Your task to perform on an android device: Check the news Image 0: 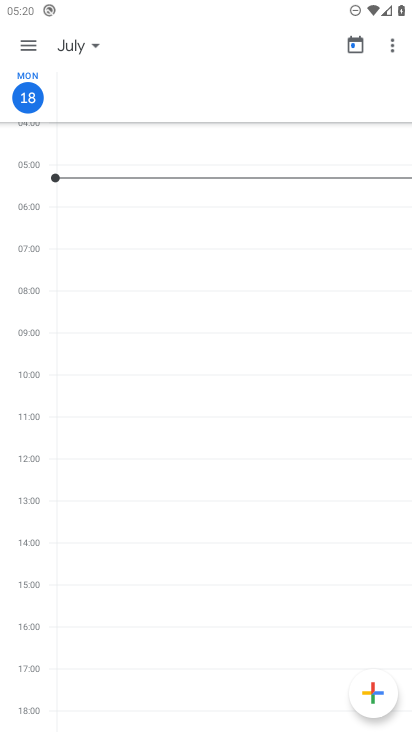
Step 0: press home button
Your task to perform on an android device: Check the news Image 1: 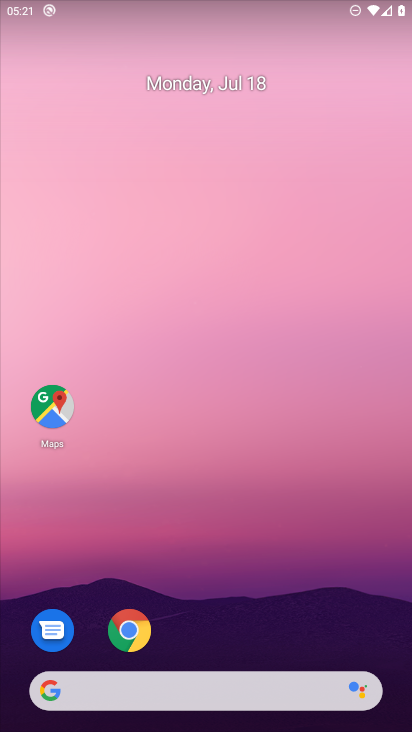
Step 1: task complete